Your task to perform on an android device: turn on bluetooth scan Image 0: 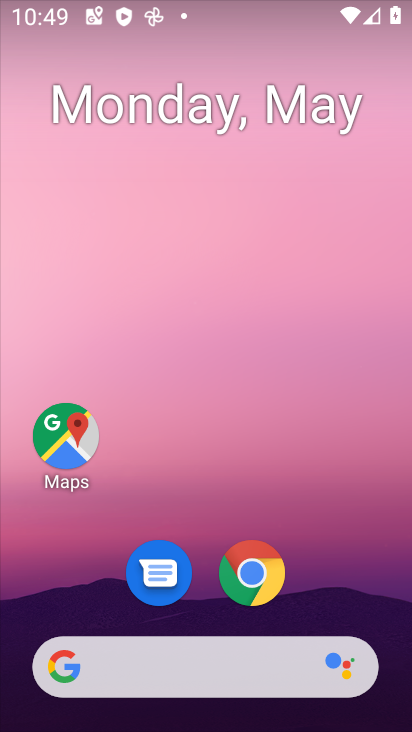
Step 0: drag from (361, 564) to (321, 153)
Your task to perform on an android device: turn on bluetooth scan Image 1: 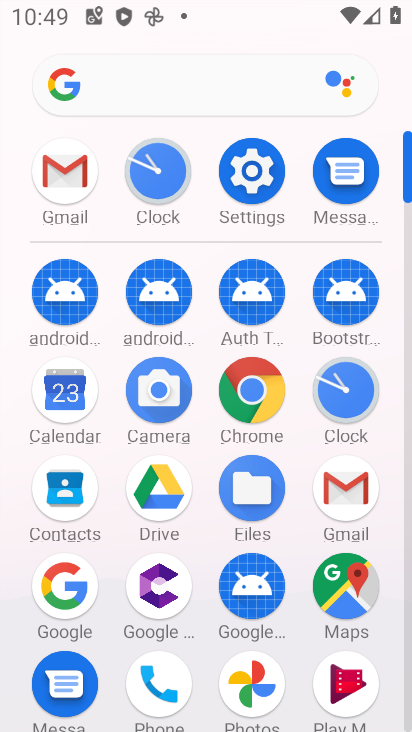
Step 1: click (261, 213)
Your task to perform on an android device: turn on bluetooth scan Image 2: 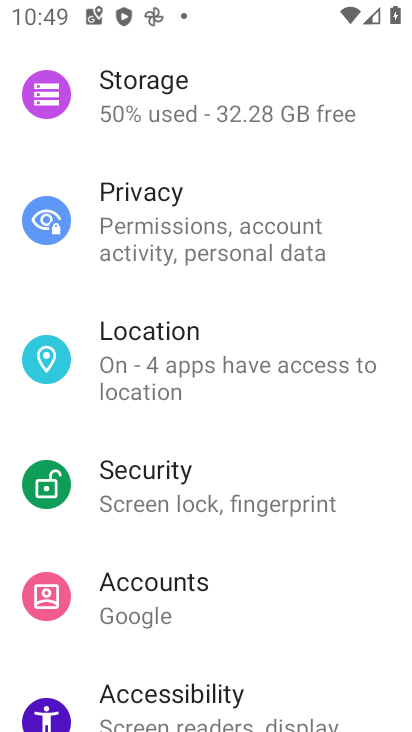
Step 2: click (260, 389)
Your task to perform on an android device: turn on bluetooth scan Image 3: 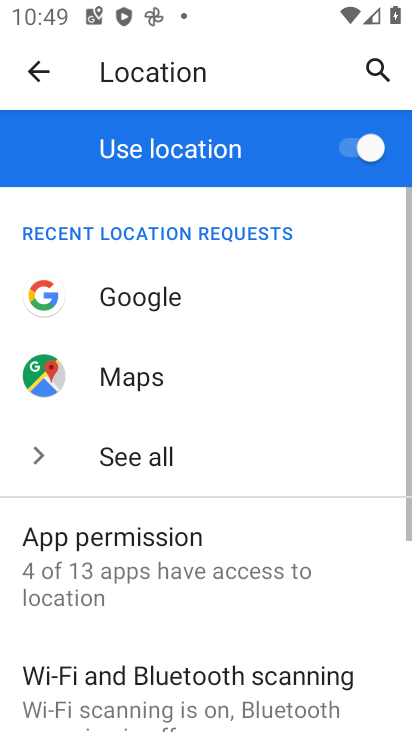
Step 3: click (207, 696)
Your task to perform on an android device: turn on bluetooth scan Image 4: 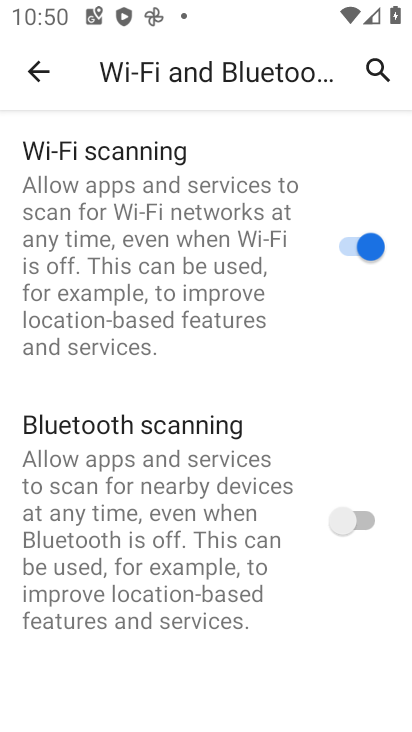
Step 4: click (293, 487)
Your task to perform on an android device: turn on bluetooth scan Image 5: 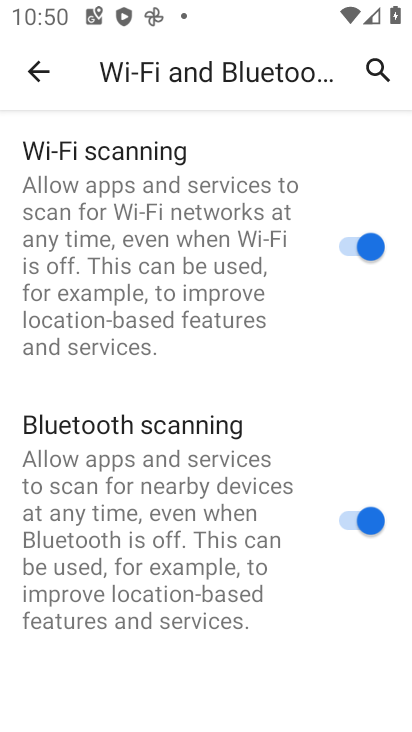
Step 5: task complete